Your task to perform on an android device: Open the web browser Image 0: 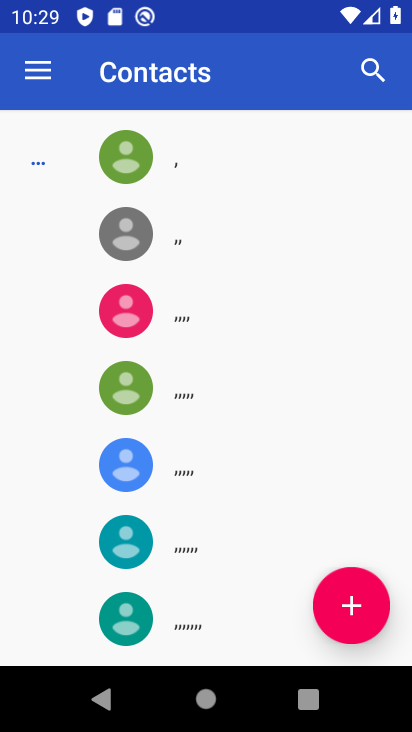
Step 0: press home button
Your task to perform on an android device: Open the web browser Image 1: 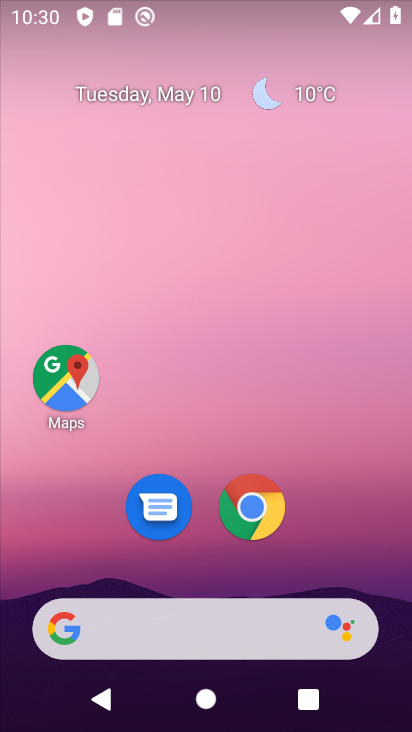
Step 1: click (255, 514)
Your task to perform on an android device: Open the web browser Image 2: 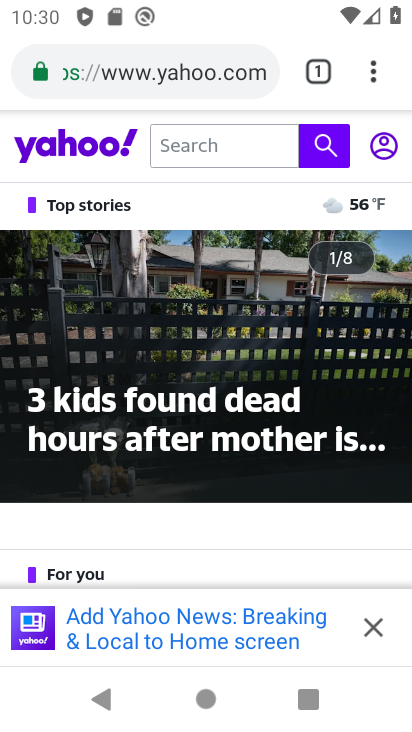
Step 2: task complete